Your task to perform on an android device: open chrome privacy settings Image 0: 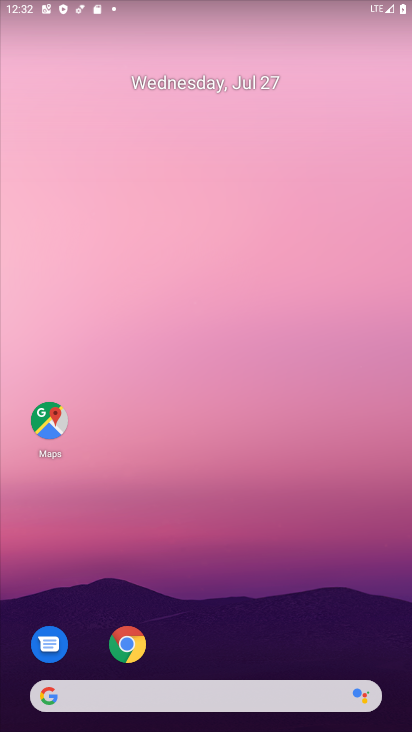
Step 0: click (128, 644)
Your task to perform on an android device: open chrome privacy settings Image 1: 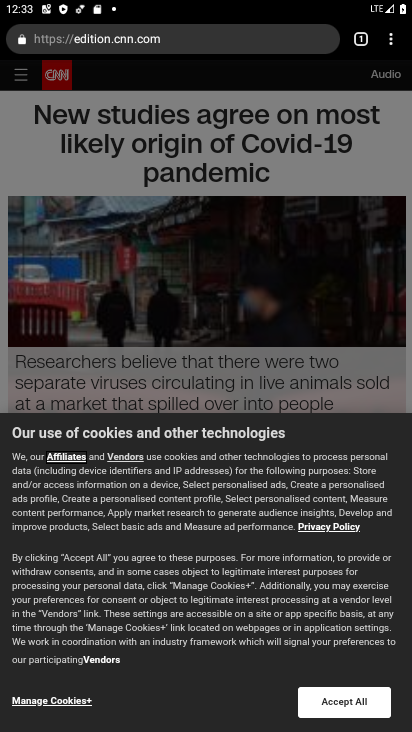
Step 1: click (388, 32)
Your task to perform on an android device: open chrome privacy settings Image 2: 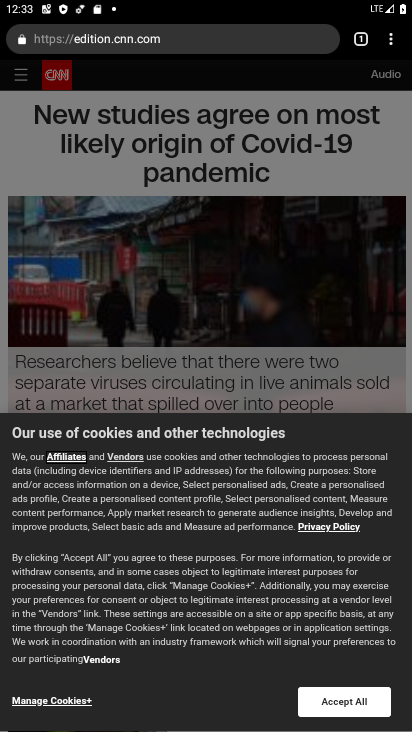
Step 2: click (394, 37)
Your task to perform on an android device: open chrome privacy settings Image 3: 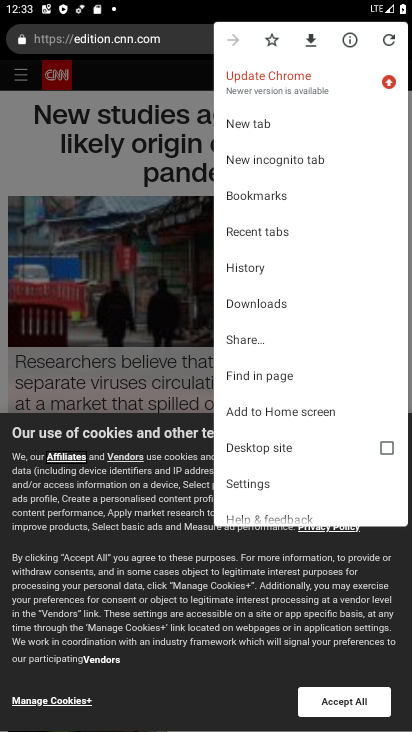
Step 3: click (247, 477)
Your task to perform on an android device: open chrome privacy settings Image 4: 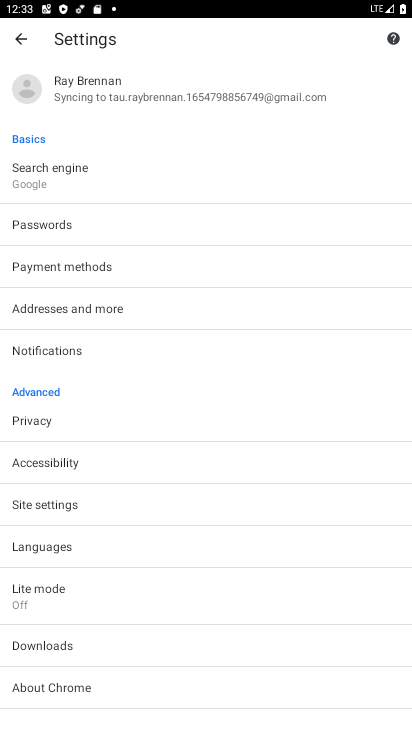
Step 4: click (61, 411)
Your task to perform on an android device: open chrome privacy settings Image 5: 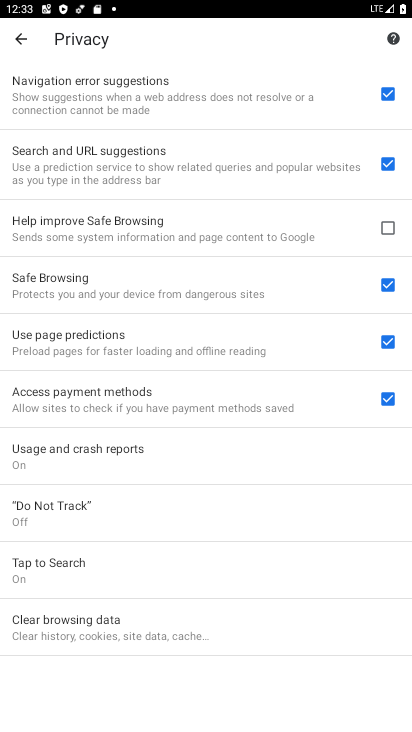
Step 5: task complete